Your task to perform on an android device: Open calendar and show me the fourth week of next month Image 0: 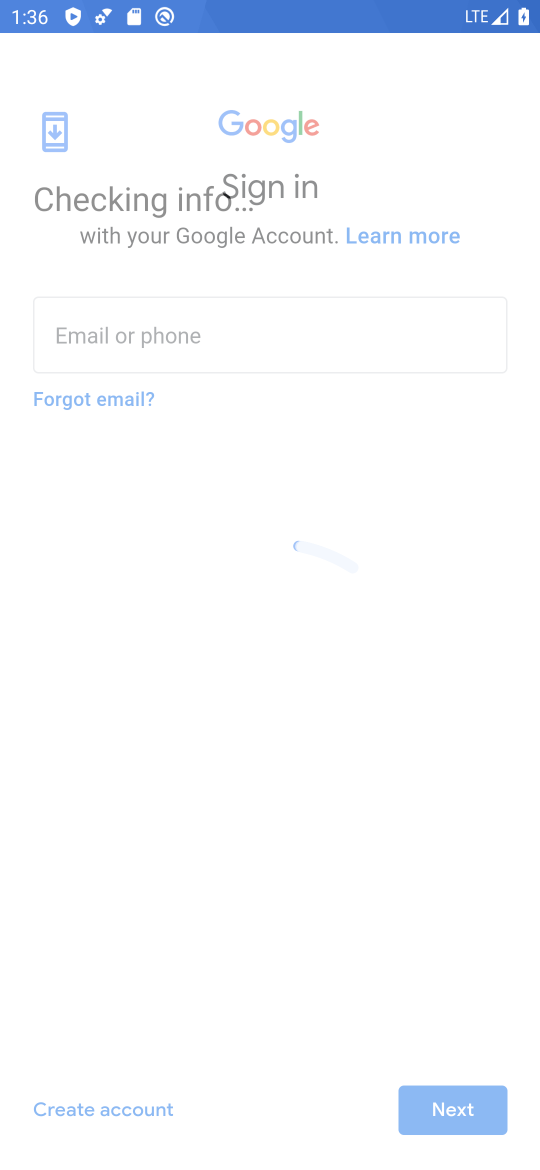
Step 0: press home button
Your task to perform on an android device: Open calendar and show me the fourth week of next month Image 1: 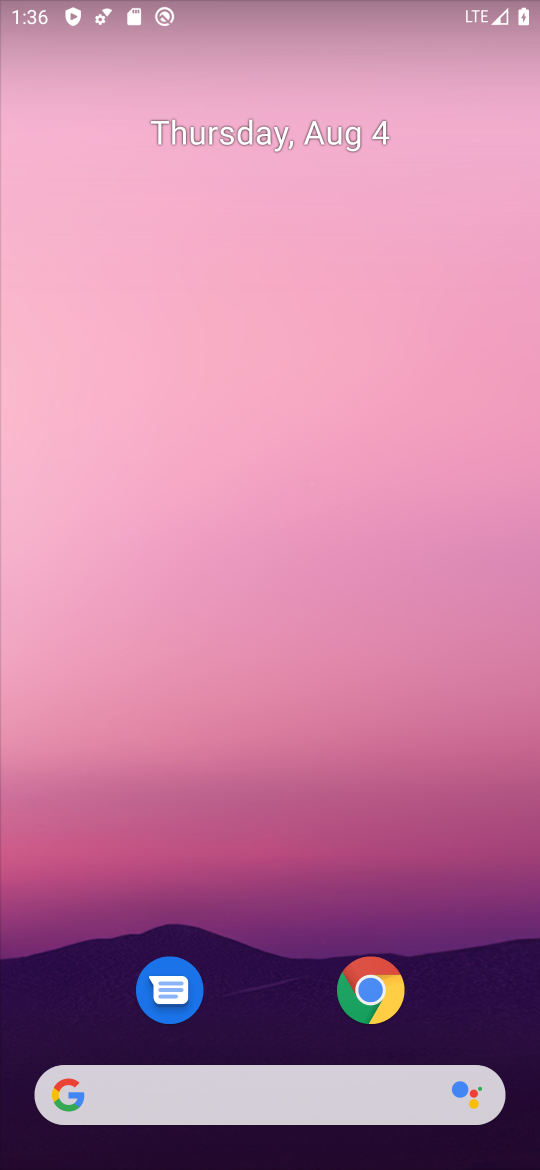
Step 1: drag from (256, 1050) to (279, 224)
Your task to perform on an android device: Open calendar and show me the fourth week of next month Image 2: 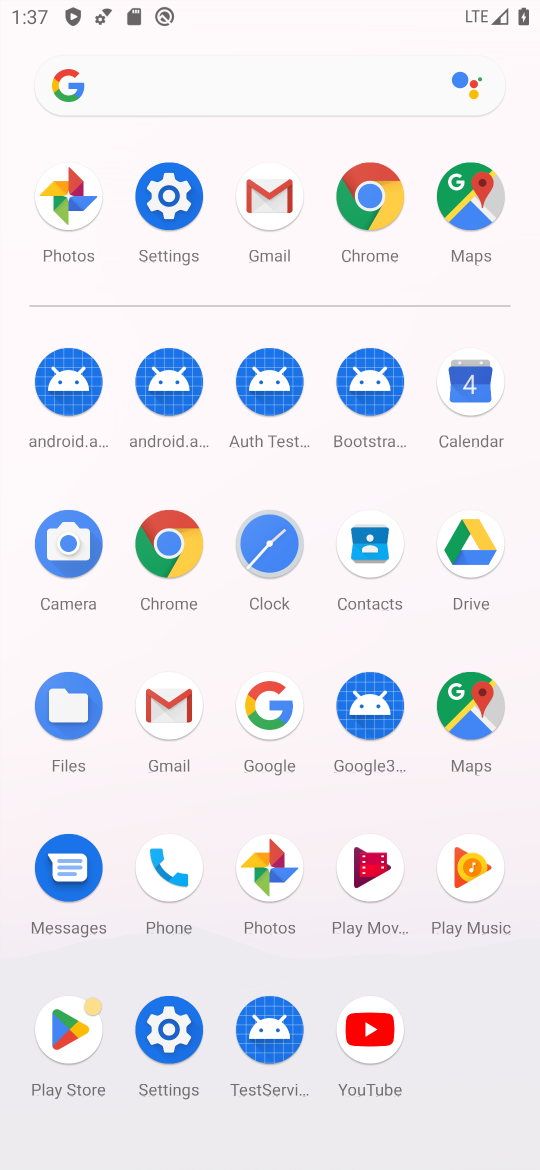
Step 2: click (449, 440)
Your task to perform on an android device: Open calendar and show me the fourth week of next month Image 3: 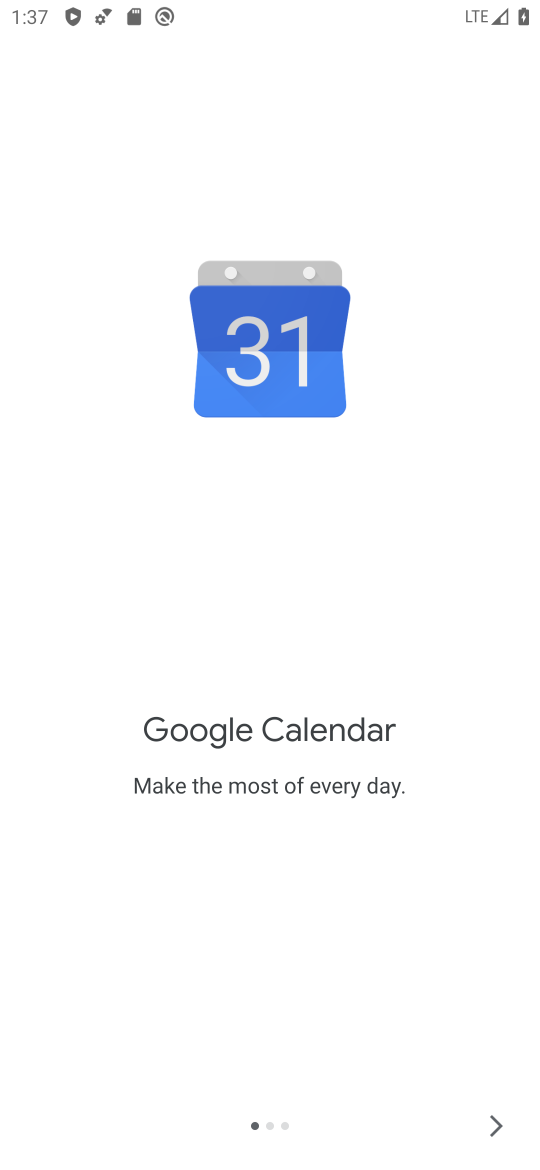
Step 3: click (487, 1149)
Your task to perform on an android device: Open calendar and show me the fourth week of next month Image 4: 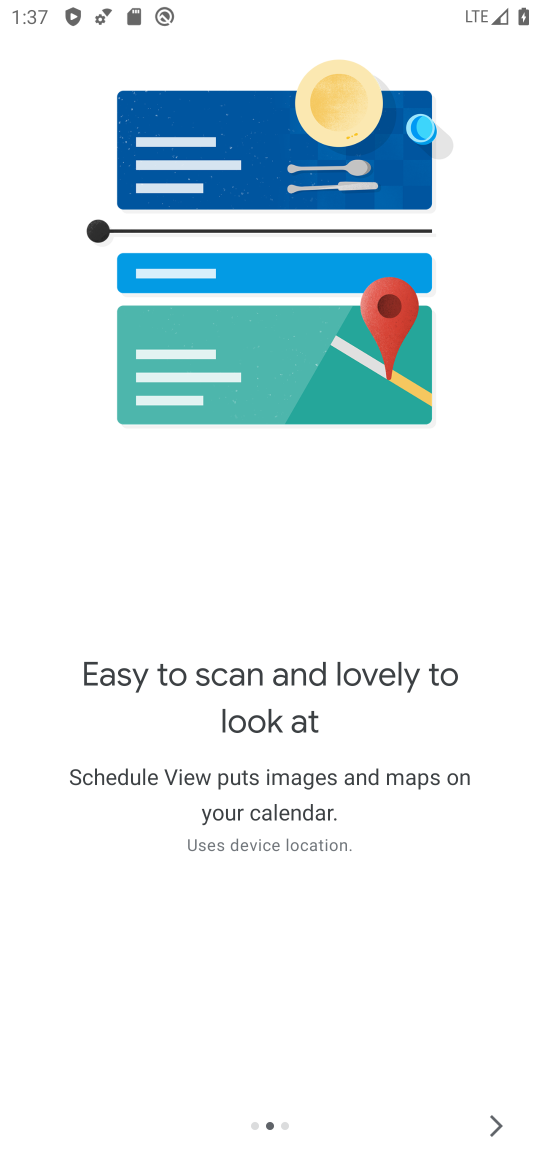
Step 4: click (487, 1149)
Your task to perform on an android device: Open calendar and show me the fourth week of next month Image 5: 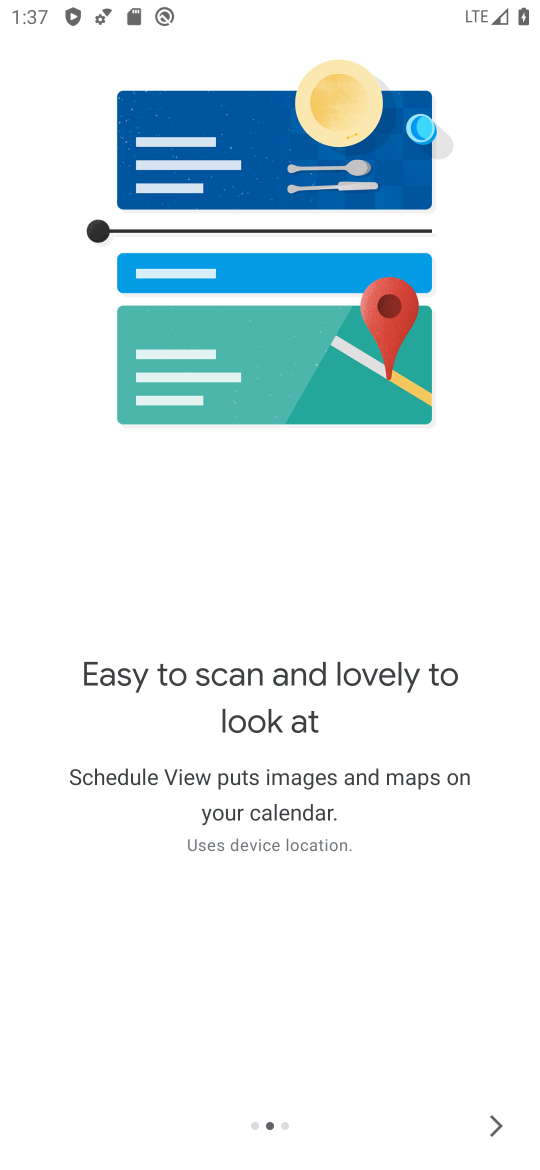
Step 5: click (487, 1149)
Your task to perform on an android device: Open calendar and show me the fourth week of next month Image 6: 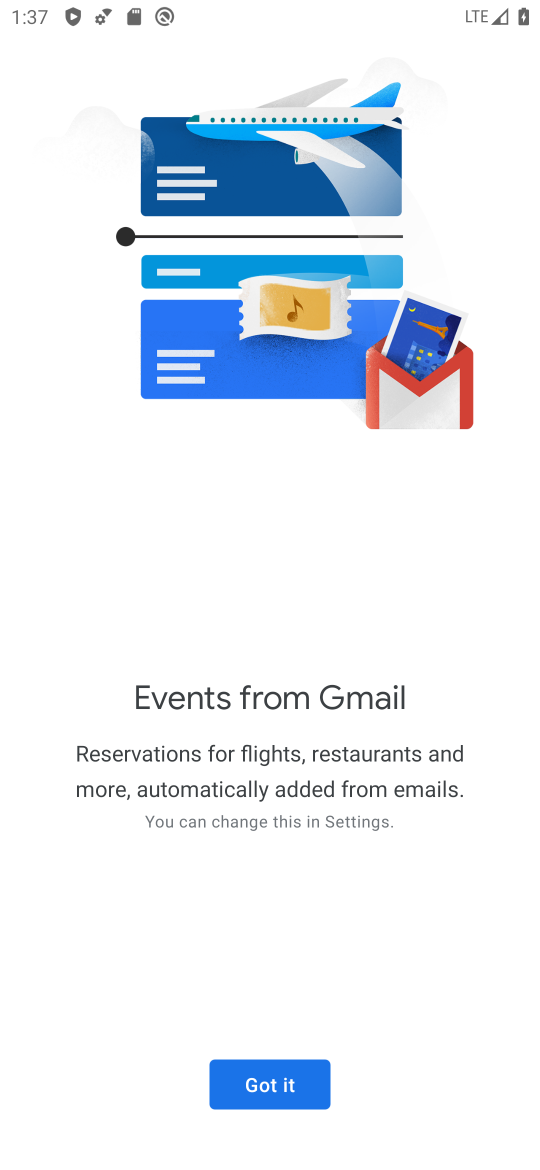
Step 6: click (248, 1095)
Your task to perform on an android device: Open calendar and show me the fourth week of next month Image 7: 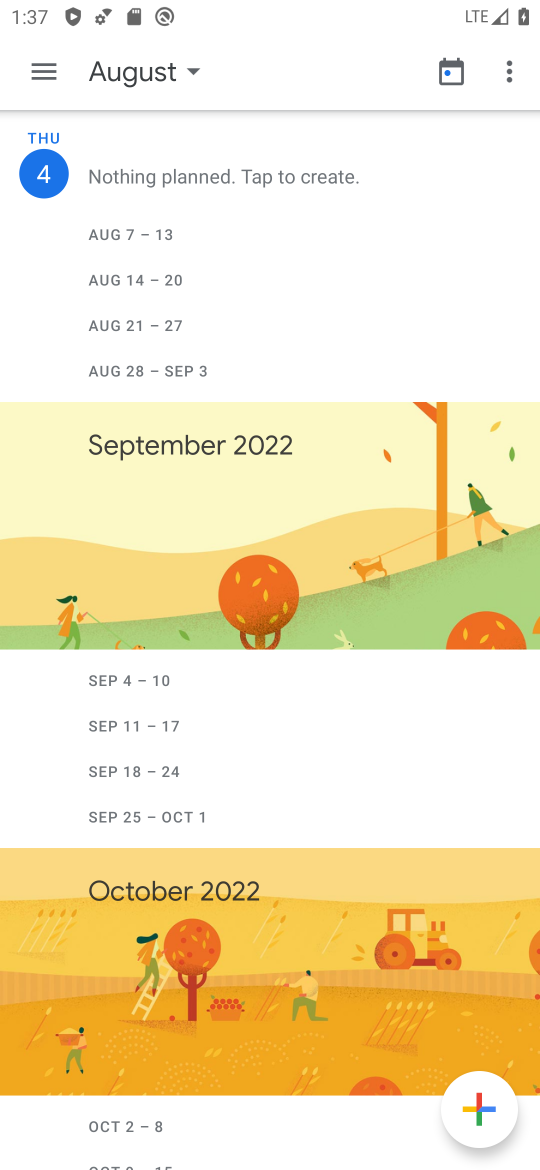
Step 7: task complete